Your task to perform on an android device: turn notification dots off Image 0: 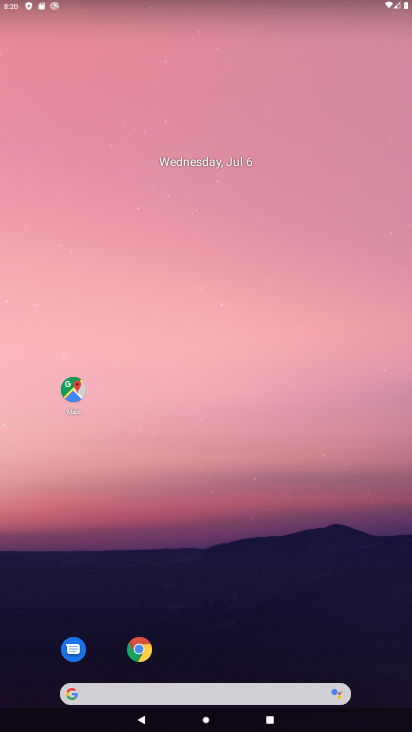
Step 0: drag from (260, 595) to (265, 280)
Your task to perform on an android device: turn notification dots off Image 1: 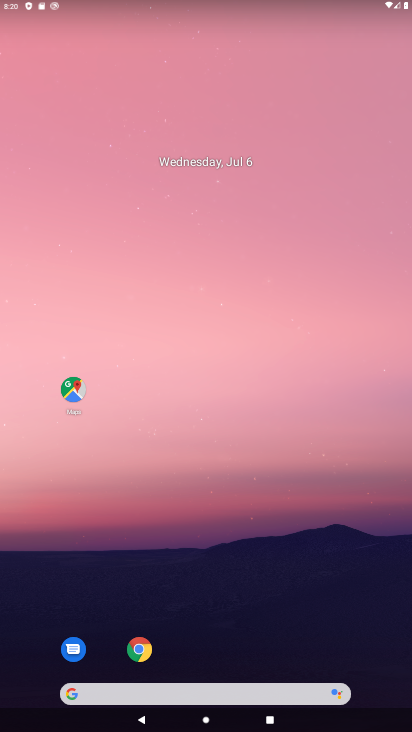
Step 1: drag from (250, 606) to (264, 231)
Your task to perform on an android device: turn notification dots off Image 2: 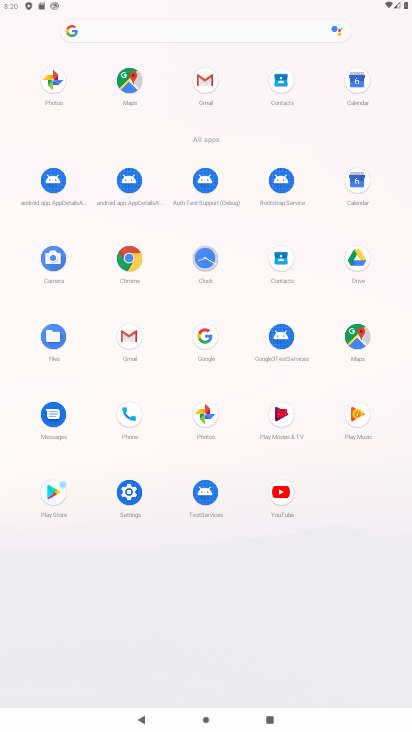
Step 2: click (118, 489)
Your task to perform on an android device: turn notification dots off Image 3: 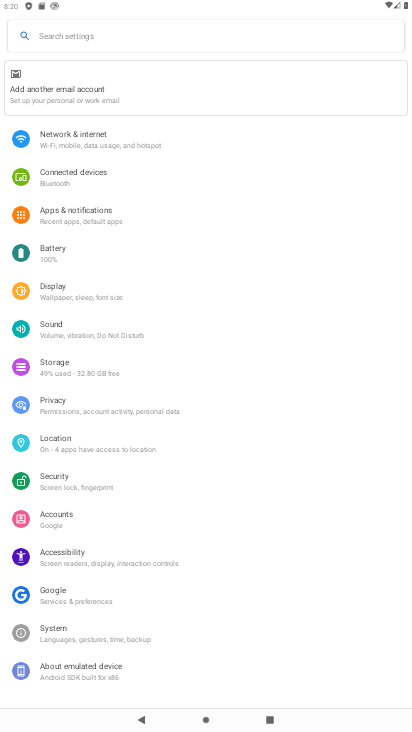
Step 3: click (114, 218)
Your task to perform on an android device: turn notification dots off Image 4: 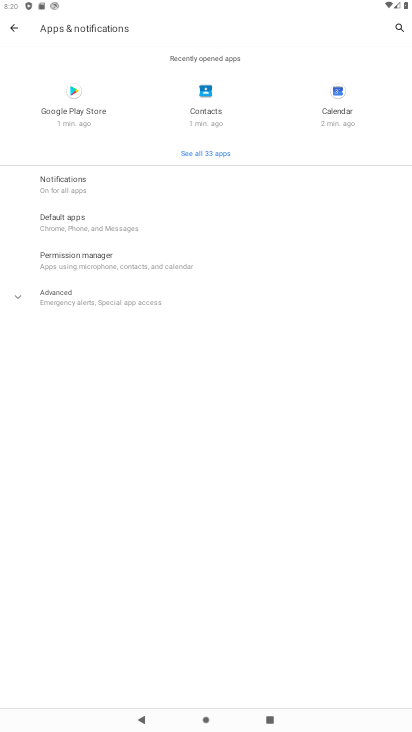
Step 4: click (96, 184)
Your task to perform on an android device: turn notification dots off Image 5: 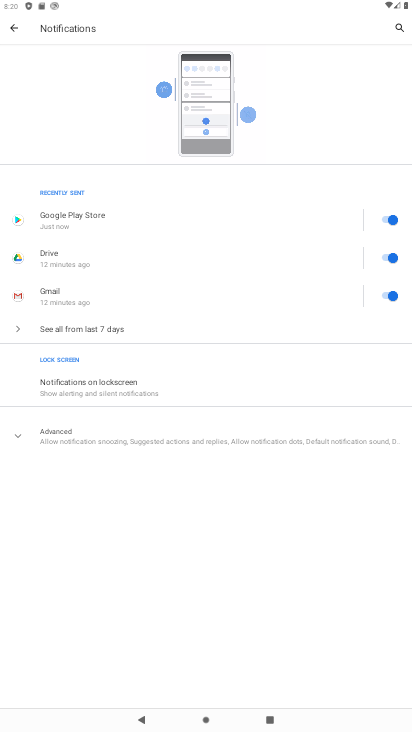
Step 5: click (101, 434)
Your task to perform on an android device: turn notification dots off Image 6: 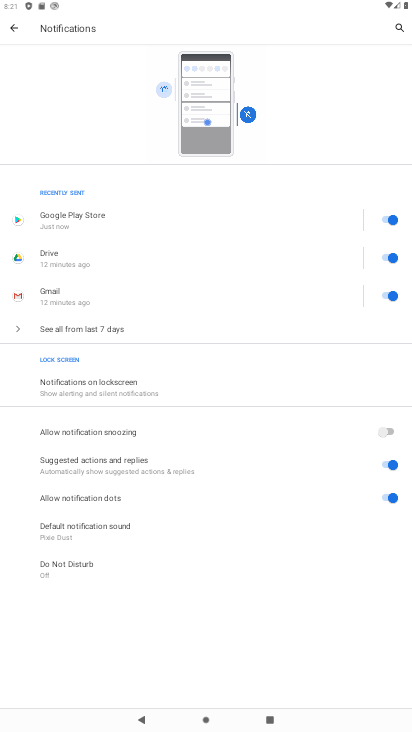
Step 6: click (261, 499)
Your task to perform on an android device: turn notification dots off Image 7: 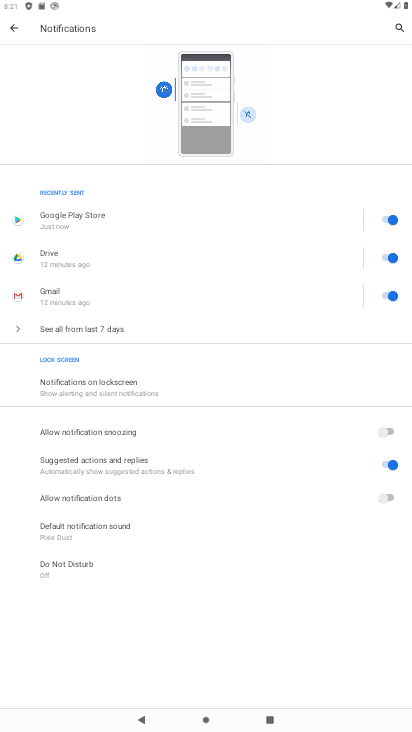
Step 7: task complete